Your task to perform on an android device: all mails in gmail Image 0: 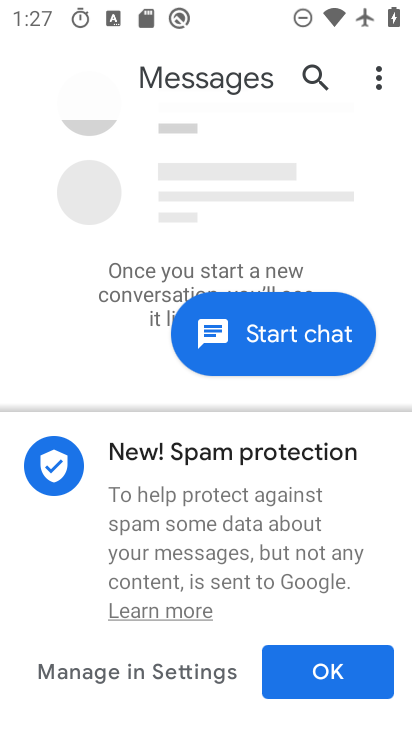
Step 0: press home button
Your task to perform on an android device: all mails in gmail Image 1: 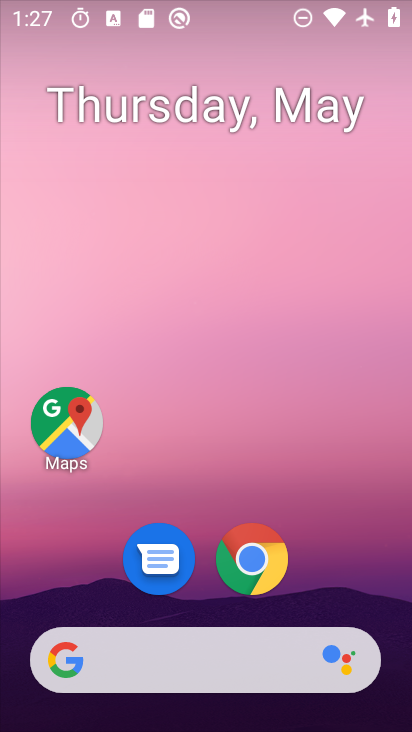
Step 1: drag from (230, 662) to (233, 121)
Your task to perform on an android device: all mails in gmail Image 2: 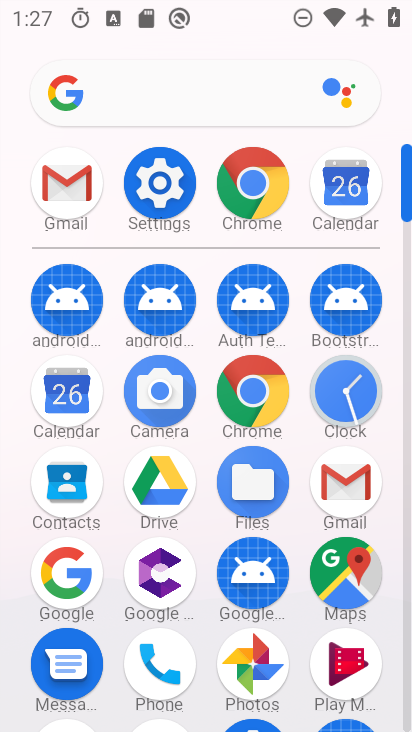
Step 2: click (342, 500)
Your task to perform on an android device: all mails in gmail Image 3: 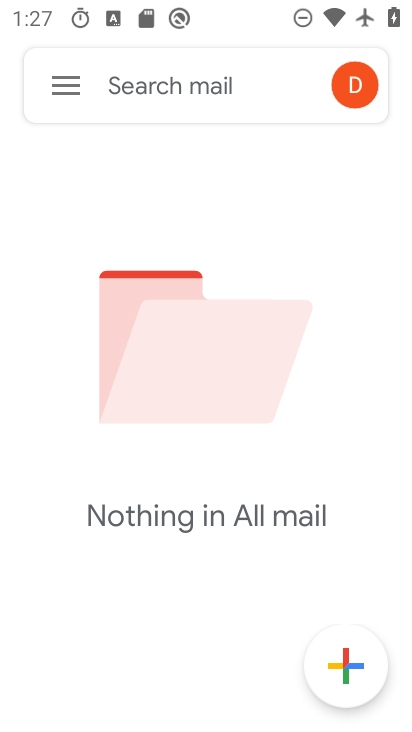
Step 3: task complete